Your task to perform on an android device: turn off airplane mode Image 0: 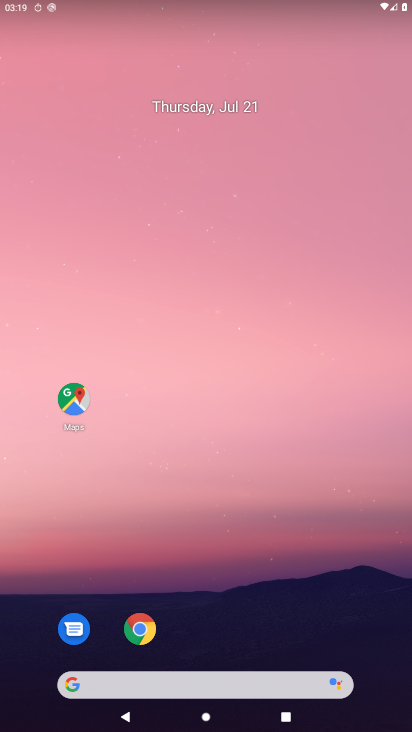
Step 0: drag from (50, 700) to (200, 353)
Your task to perform on an android device: turn off airplane mode Image 1: 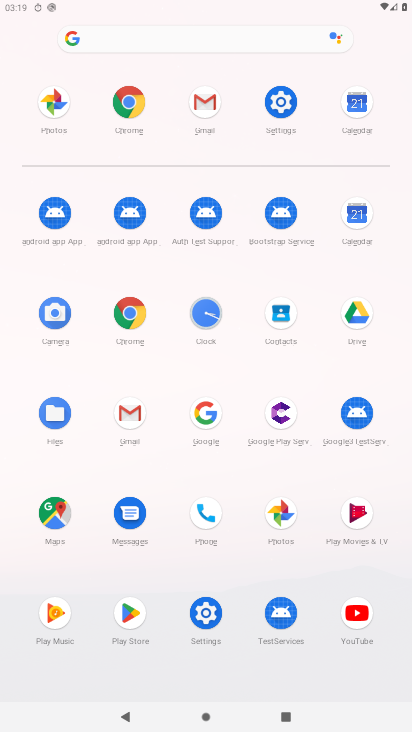
Step 1: click (205, 607)
Your task to perform on an android device: turn off airplane mode Image 2: 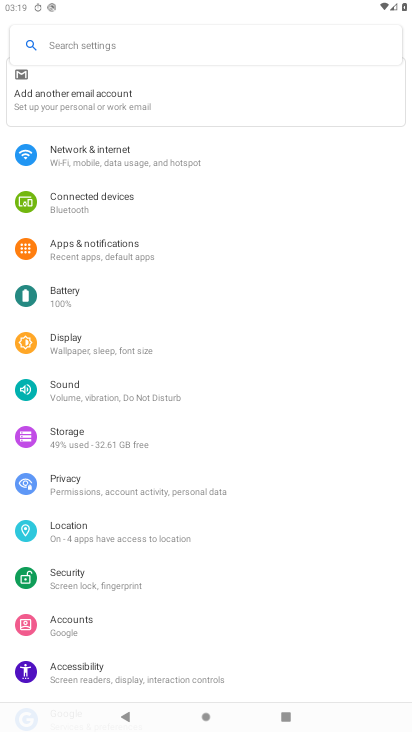
Step 2: click (101, 163)
Your task to perform on an android device: turn off airplane mode Image 3: 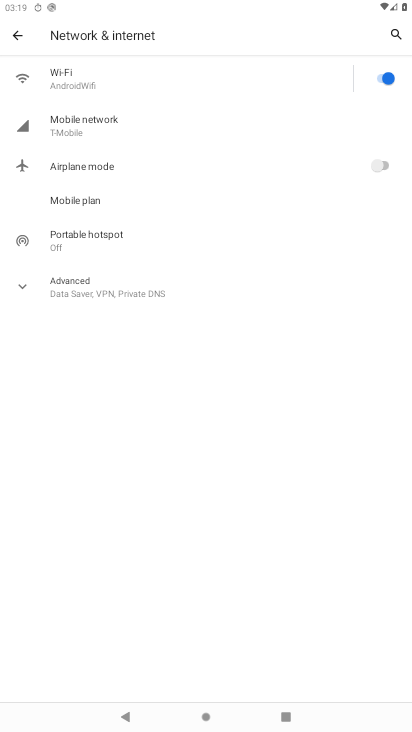
Step 3: task complete